Your task to perform on an android device: turn notification dots on Image 0: 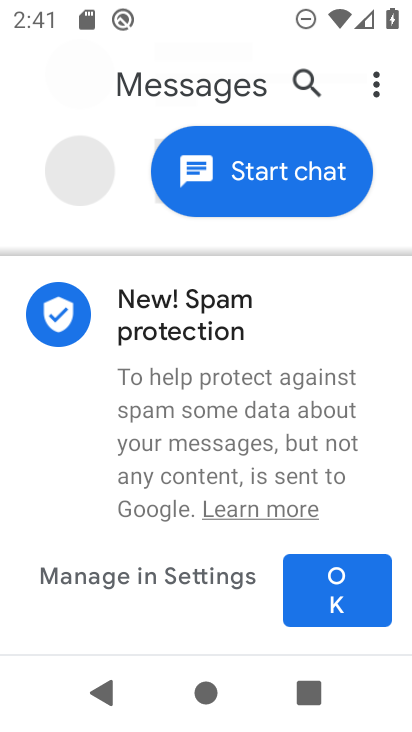
Step 0: press home button
Your task to perform on an android device: turn notification dots on Image 1: 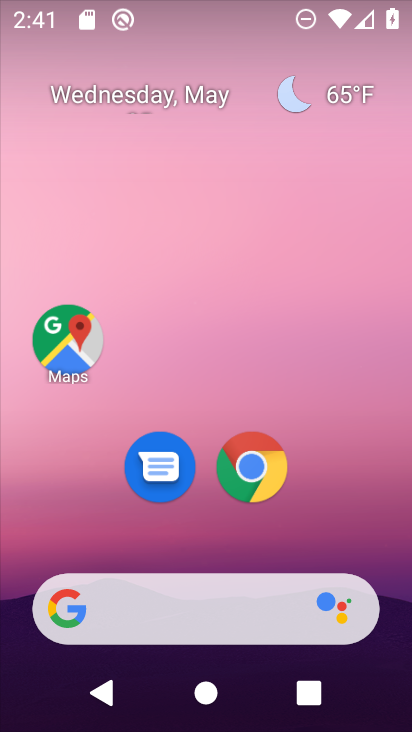
Step 1: drag from (255, 257) to (253, 210)
Your task to perform on an android device: turn notification dots on Image 2: 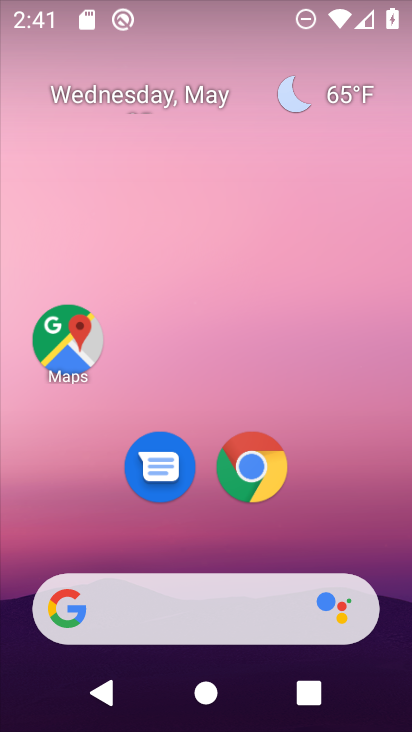
Step 2: drag from (229, 552) to (274, 225)
Your task to perform on an android device: turn notification dots on Image 3: 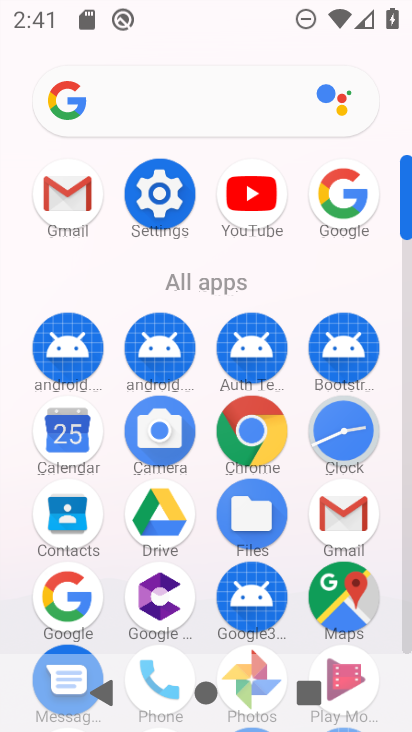
Step 3: click (145, 200)
Your task to perform on an android device: turn notification dots on Image 4: 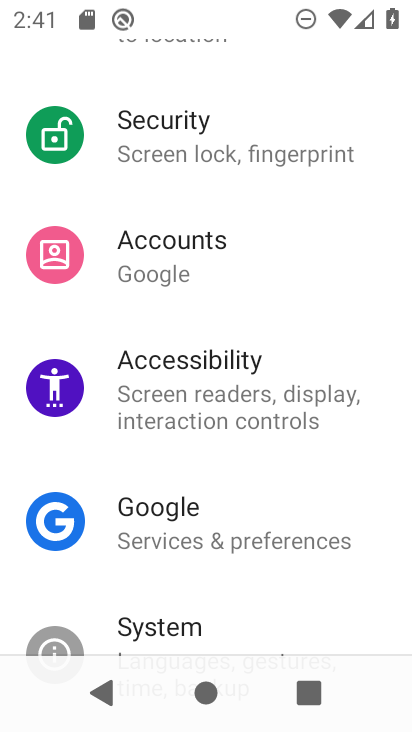
Step 4: drag from (293, 148) to (294, 588)
Your task to perform on an android device: turn notification dots on Image 5: 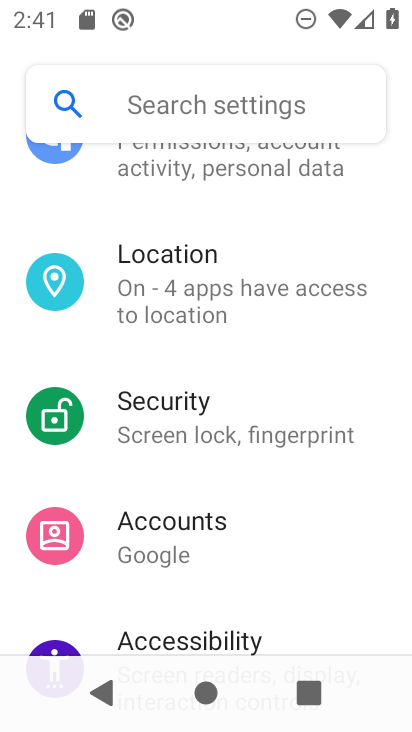
Step 5: click (173, 108)
Your task to perform on an android device: turn notification dots on Image 6: 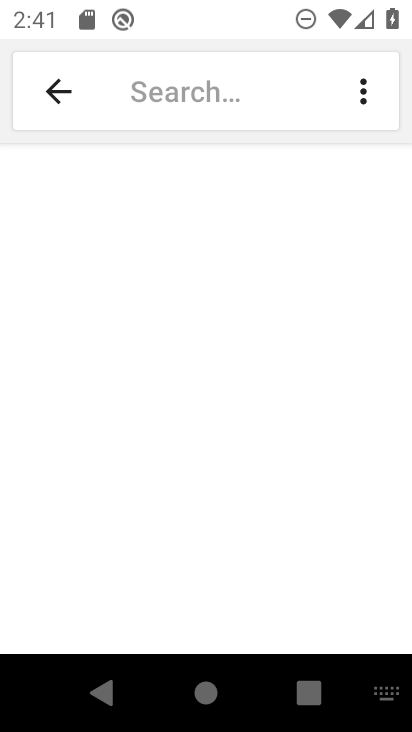
Step 6: type "notification dots"
Your task to perform on an android device: turn notification dots on Image 7: 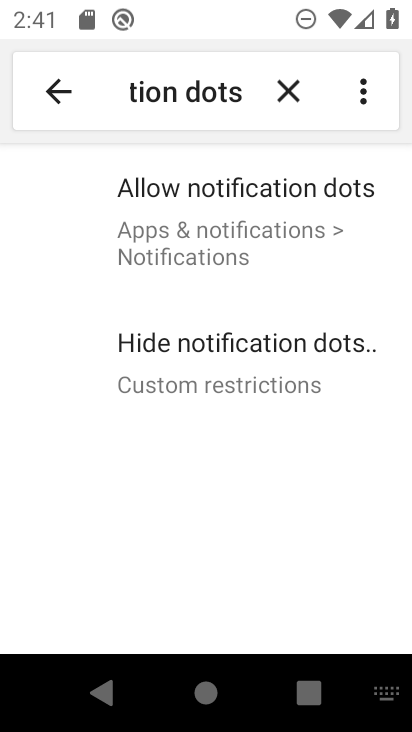
Step 7: click (188, 248)
Your task to perform on an android device: turn notification dots on Image 8: 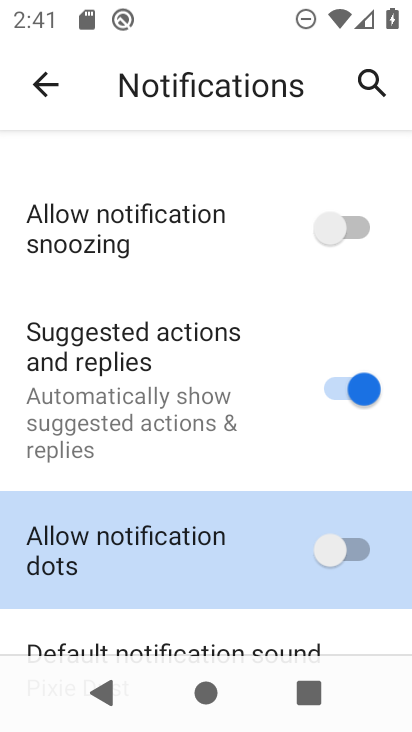
Step 8: click (340, 536)
Your task to perform on an android device: turn notification dots on Image 9: 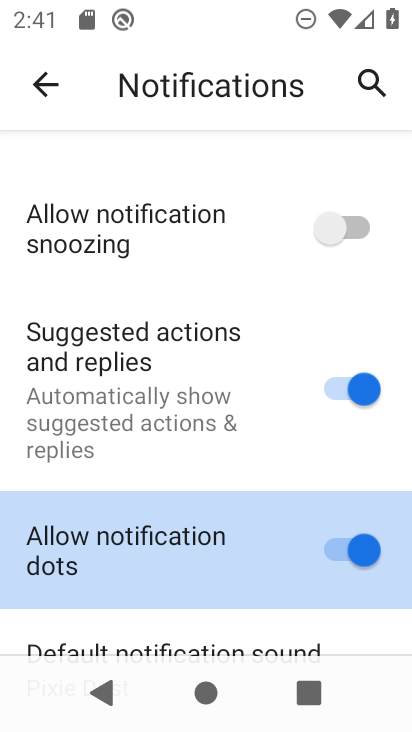
Step 9: task complete